Your task to perform on an android device: Do I have any events tomorrow? Image 0: 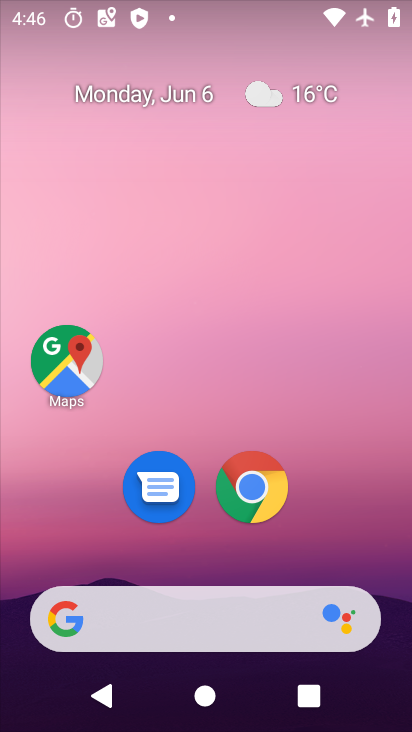
Step 0: drag from (351, 477) to (220, 19)
Your task to perform on an android device: Do I have any events tomorrow? Image 1: 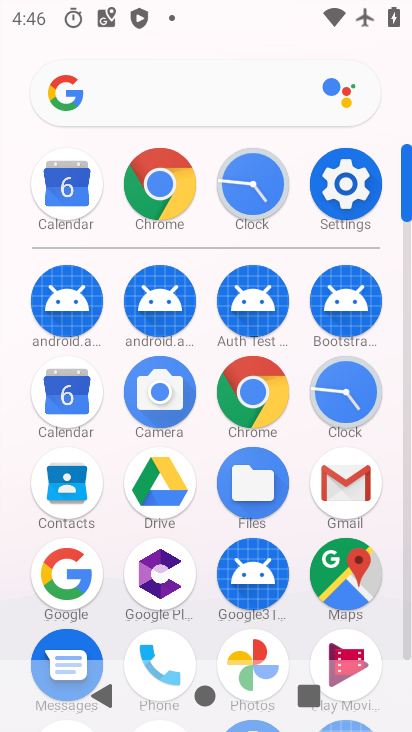
Step 1: click (64, 406)
Your task to perform on an android device: Do I have any events tomorrow? Image 2: 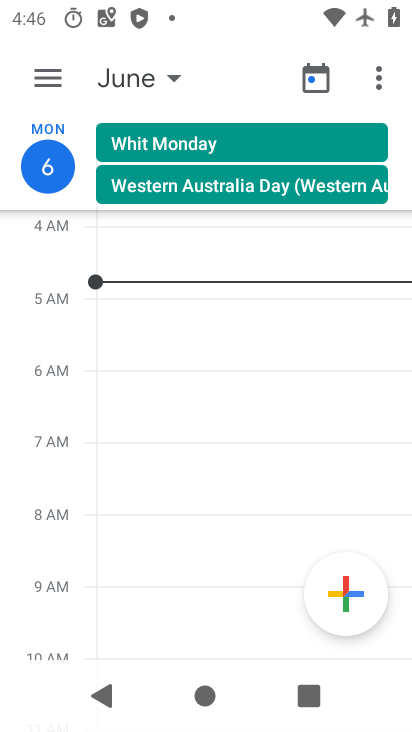
Step 2: click (145, 88)
Your task to perform on an android device: Do I have any events tomorrow? Image 3: 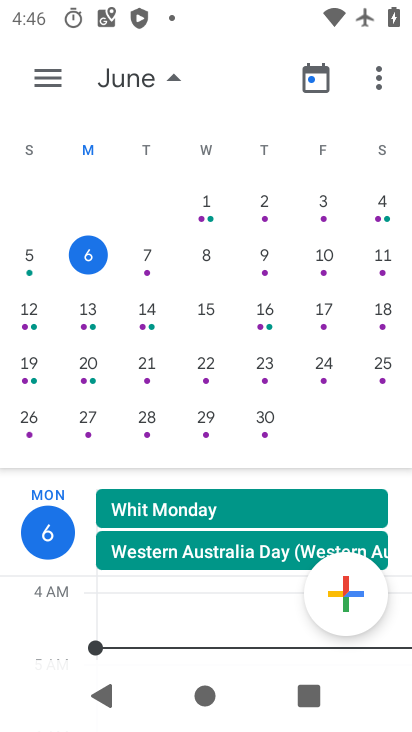
Step 3: click (154, 254)
Your task to perform on an android device: Do I have any events tomorrow? Image 4: 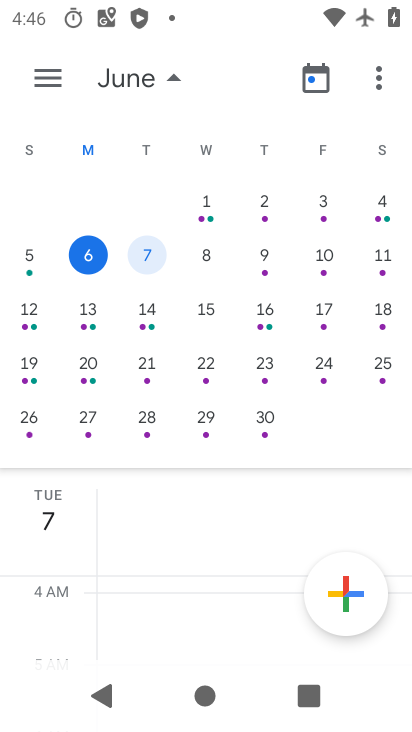
Step 4: click (149, 247)
Your task to perform on an android device: Do I have any events tomorrow? Image 5: 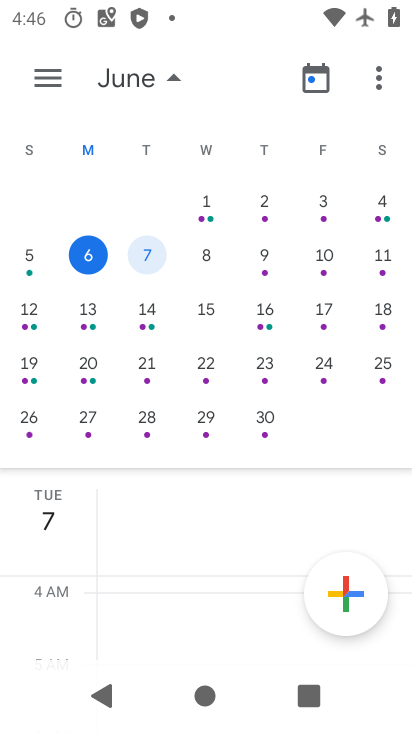
Step 5: task complete